Your task to perform on an android device: turn on airplane mode Image 0: 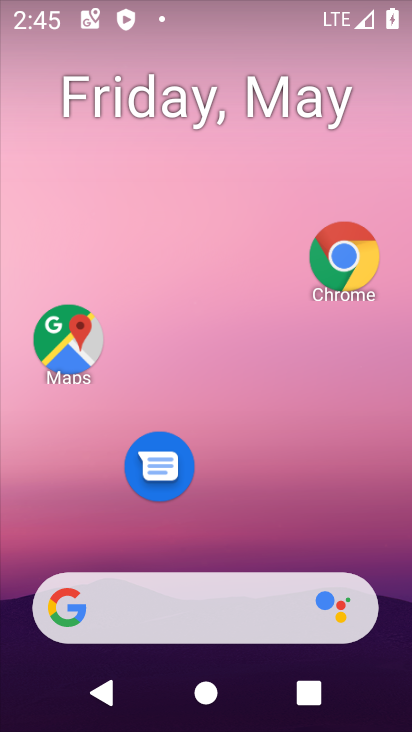
Step 0: drag from (232, 8) to (226, 454)
Your task to perform on an android device: turn on airplane mode Image 1: 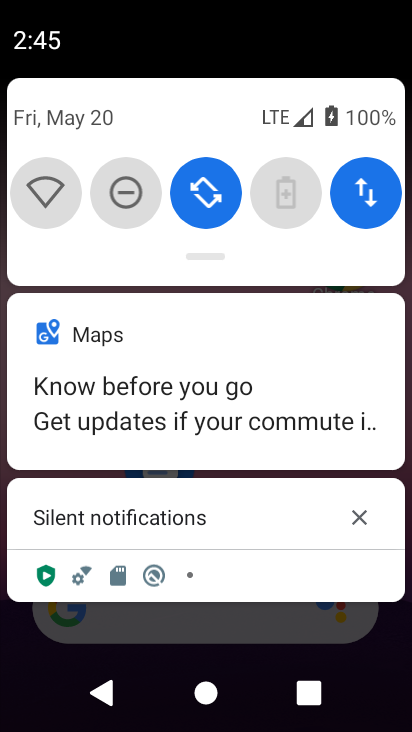
Step 1: drag from (248, 220) to (248, 542)
Your task to perform on an android device: turn on airplane mode Image 2: 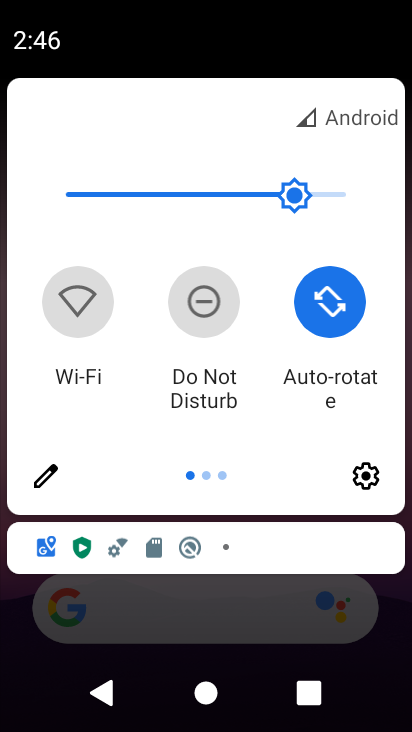
Step 2: drag from (367, 241) to (6, 255)
Your task to perform on an android device: turn on airplane mode Image 3: 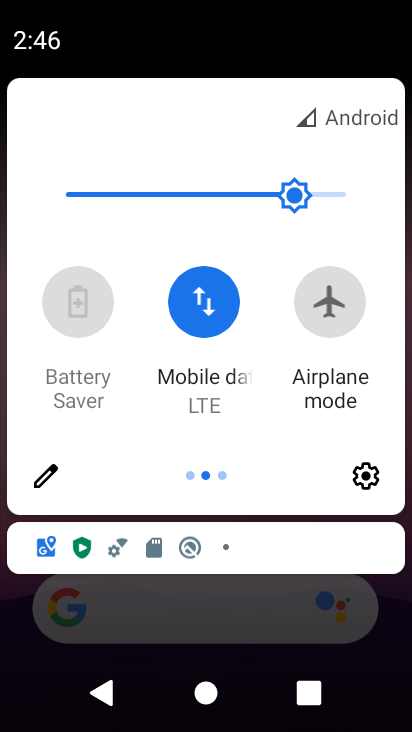
Step 3: click (333, 305)
Your task to perform on an android device: turn on airplane mode Image 4: 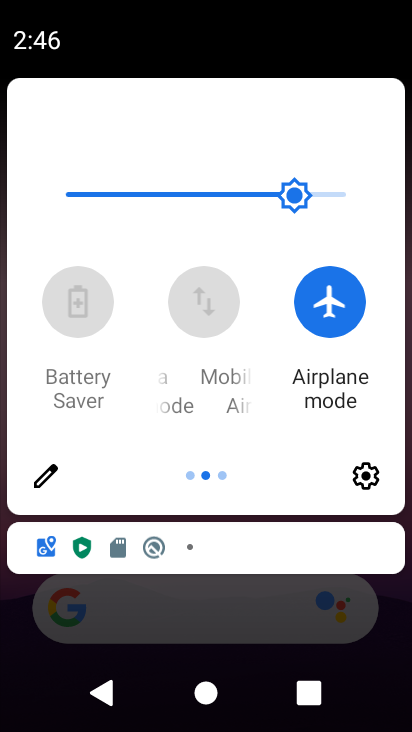
Step 4: task complete